Your task to perform on an android device: Open the map Image 0: 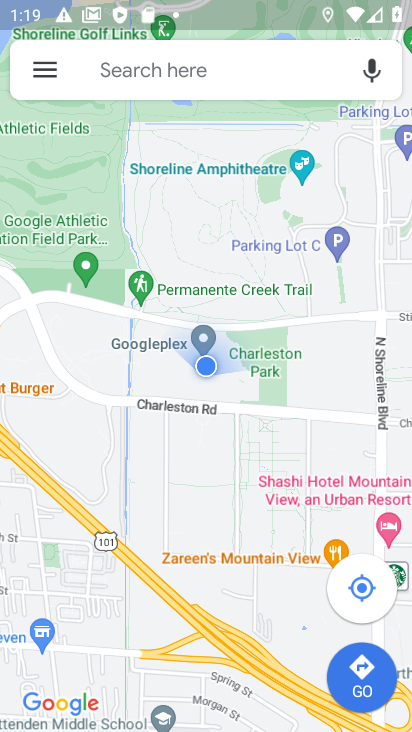
Step 0: task complete